Your task to perform on an android device: Open Reddit.com Image 0: 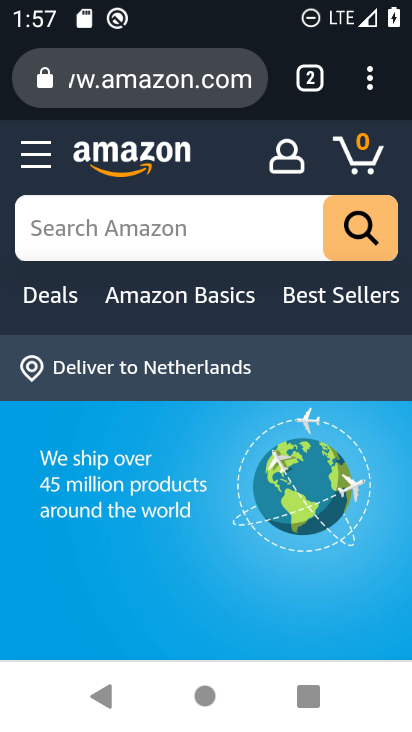
Step 0: drag from (186, 625) to (226, 105)
Your task to perform on an android device: Open Reddit.com Image 1: 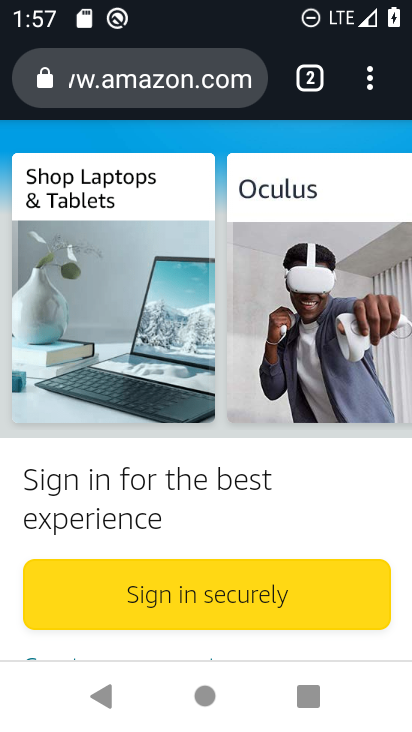
Step 1: press home button
Your task to perform on an android device: Open Reddit.com Image 2: 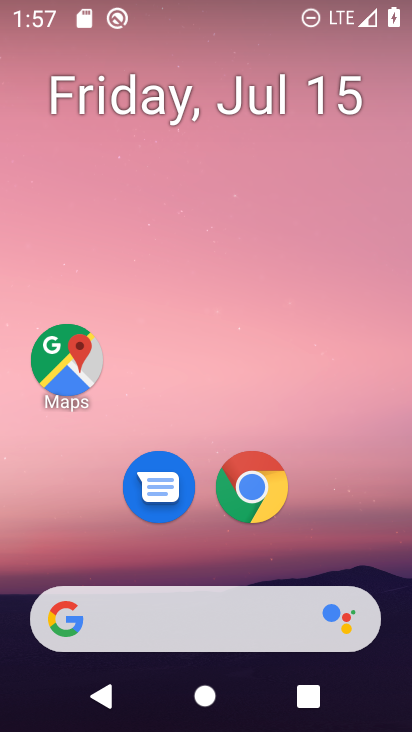
Step 2: drag from (236, 617) to (299, 219)
Your task to perform on an android device: Open Reddit.com Image 3: 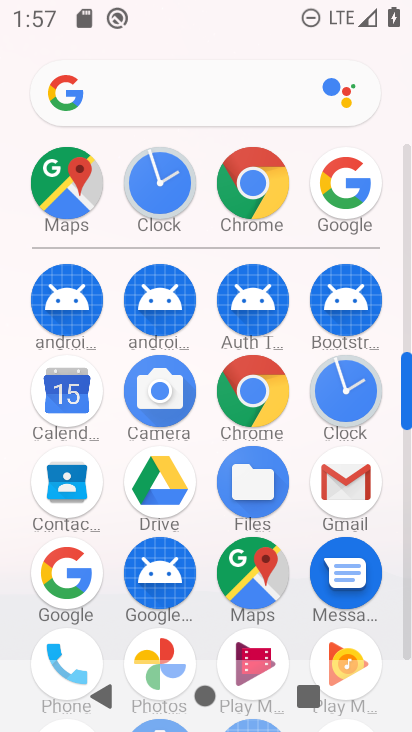
Step 3: click (268, 411)
Your task to perform on an android device: Open Reddit.com Image 4: 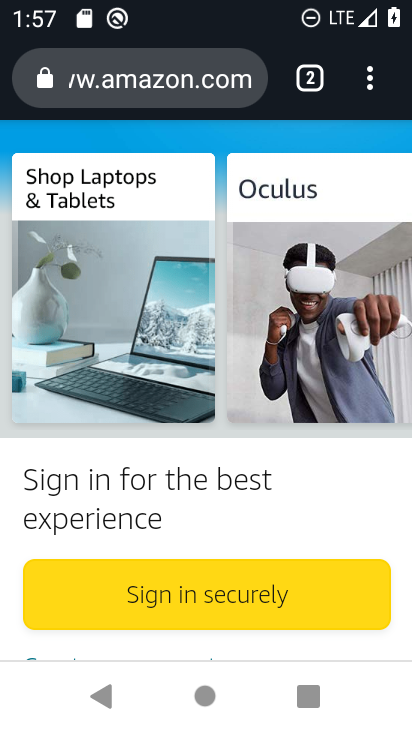
Step 4: click (130, 75)
Your task to perform on an android device: Open Reddit.com Image 5: 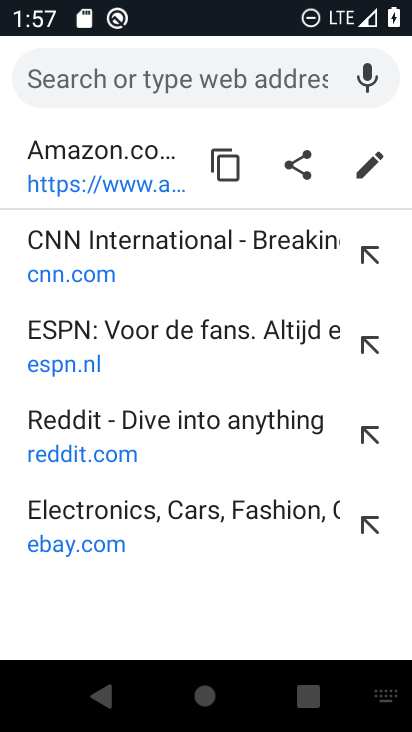
Step 5: click (225, 441)
Your task to perform on an android device: Open Reddit.com Image 6: 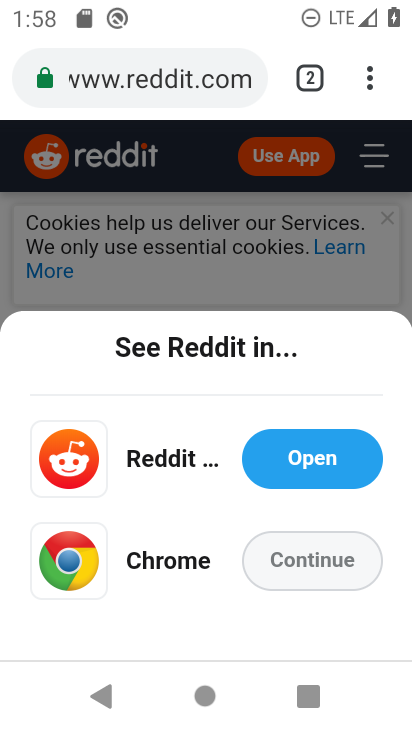
Step 6: task complete